Your task to perform on an android device: empty trash in the gmail app Image 0: 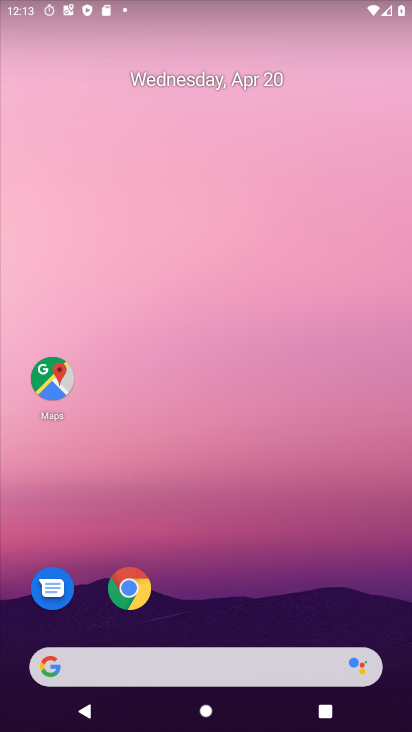
Step 0: drag from (199, 629) to (170, 66)
Your task to perform on an android device: empty trash in the gmail app Image 1: 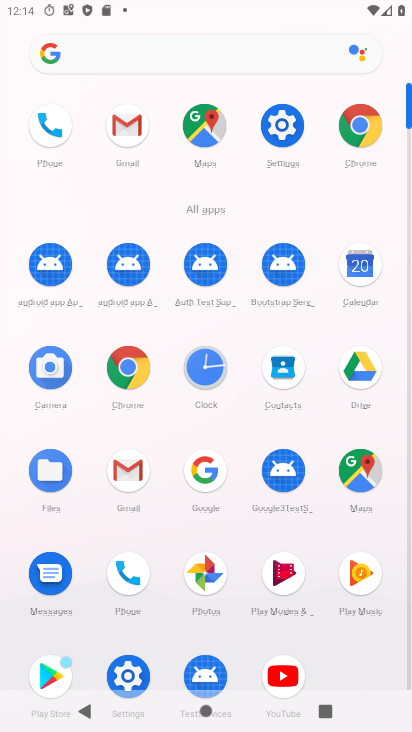
Step 1: click (120, 475)
Your task to perform on an android device: empty trash in the gmail app Image 2: 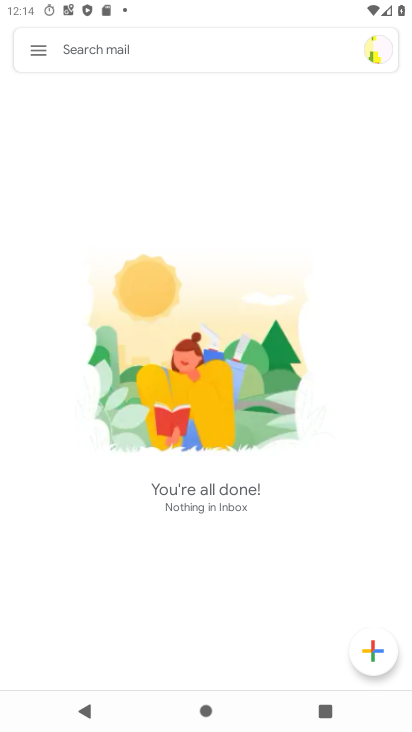
Step 2: click (32, 49)
Your task to perform on an android device: empty trash in the gmail app Image 3: 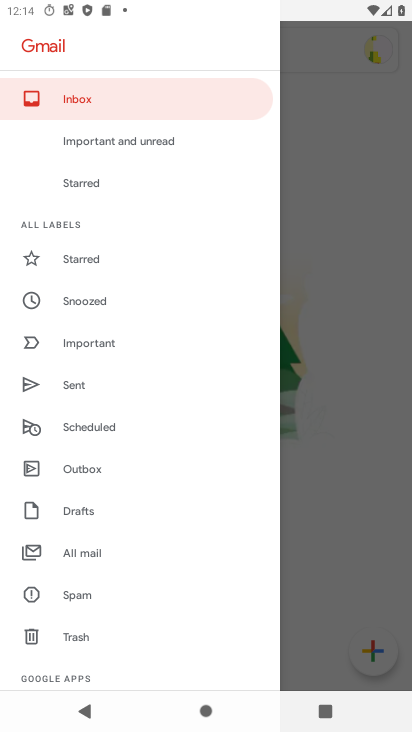
Step 3: click (81, 630)
Your task to perform on an android device: empty trash in the gmail app Image 4: 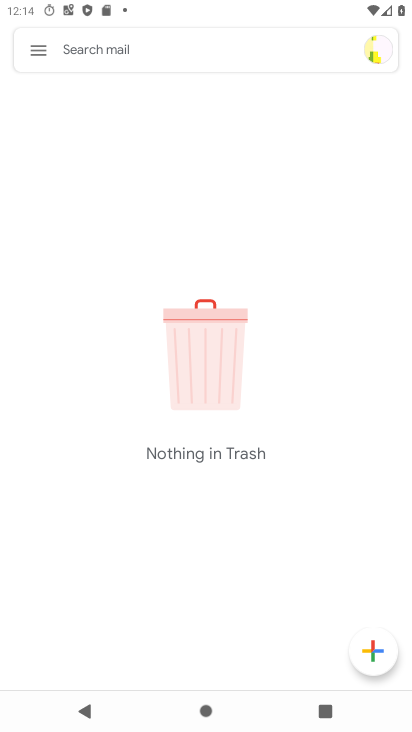
Step 4: task complete